Your task to perform on an android device: change your default location settings in chrome Image 0: 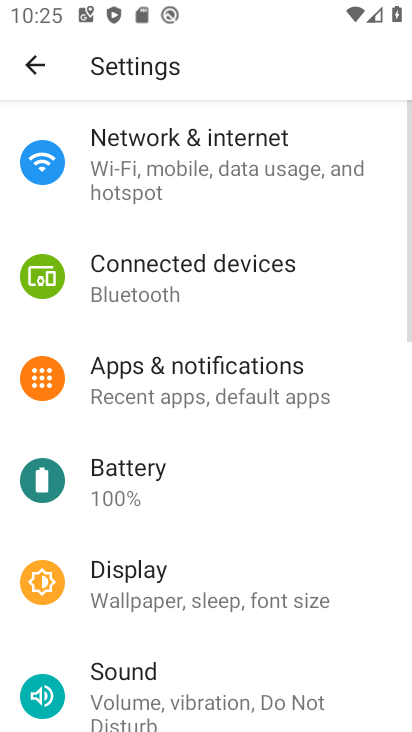
Step 0: press home button
Your task to perform on an android device: change your default location settings in chrome Image 1: 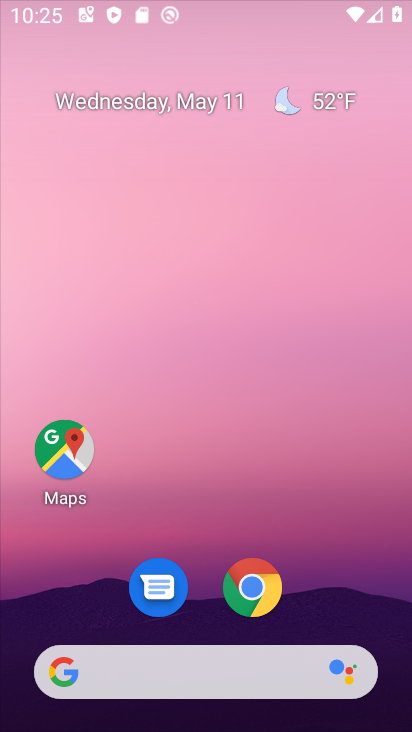
Step 1: drag from (228, 708) to (96, 184)
Your task to perform on an android device: change your default location settings in chrome Image 2: 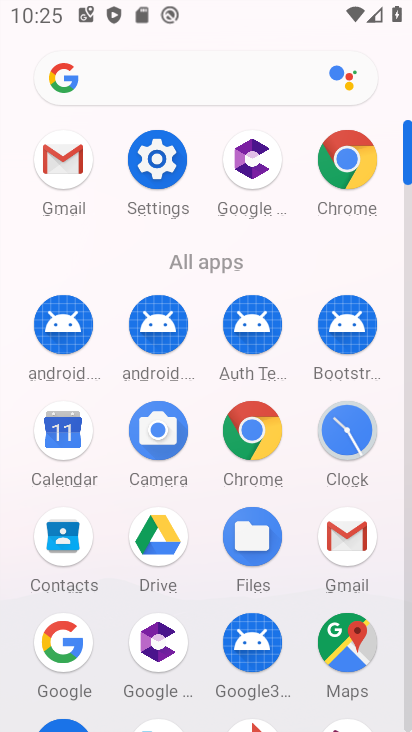
Step 2: click (229, 448)
Your task to perform on an android device: change your default location settings in chrome Image 3: 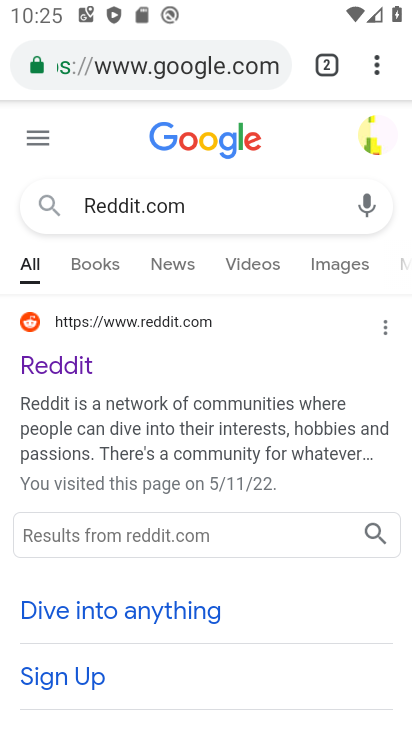
Step 3: click (363, 81)
Your task to perform on an android device: change your default location settings in chrome Image 4: 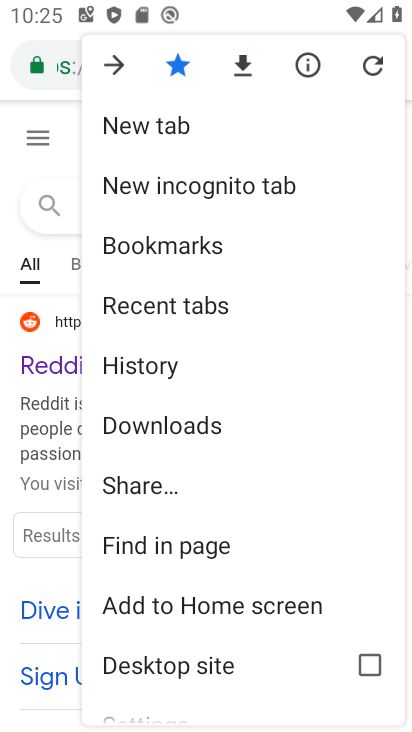
Step 4: click (164, 709)
Your task to perform on an android device: change your default location settings in chrome Image 5: 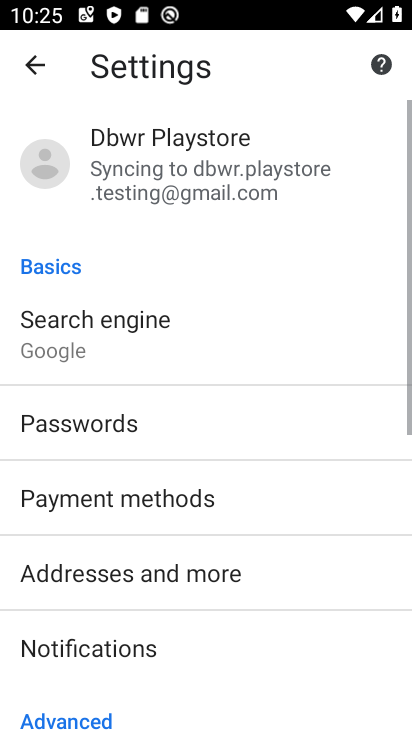
Step 5: drag from (184, 540) to (165, 327)
Your task to perform on an android device: change your default location settings in chrome Image 6: 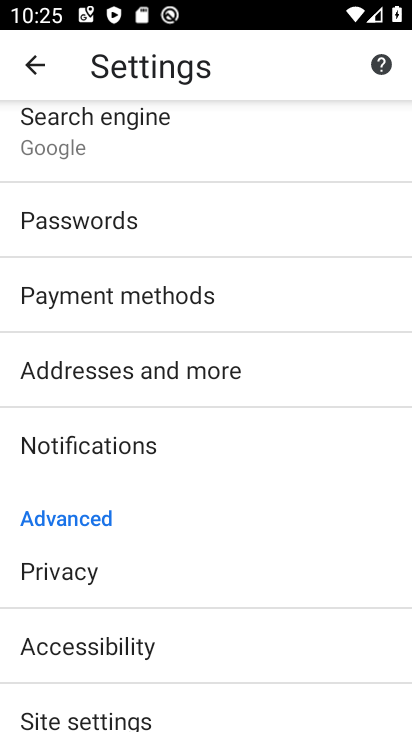
Step 6: drag from (150, 605) to (173, 343)
Your task to perform on an android device: change your default location settings in chrome Image 7: 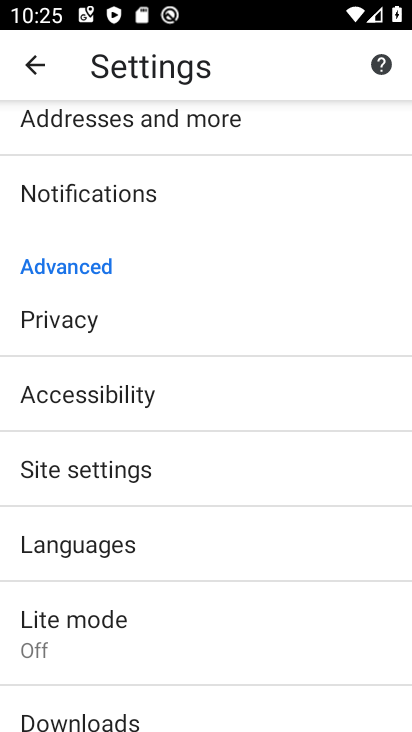
Step 7: drag from (142, 602) to (154, 379)
Your task to perform on an android device: change your default location settings in chrome Image 8: 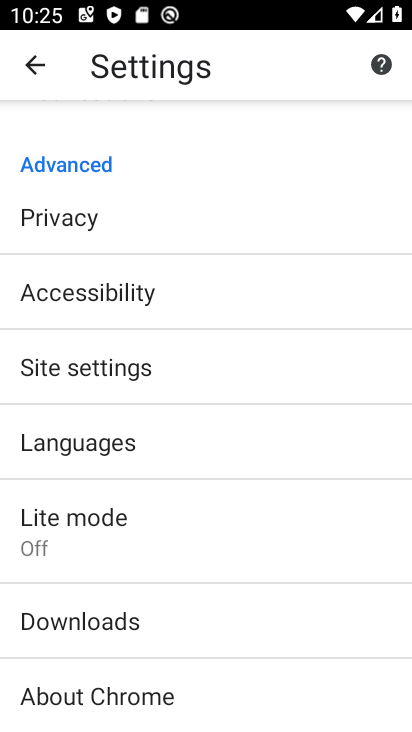
Step 8: click (87, 384)
Your task to perform on an android device: change your default location settings in chrome Image 9: 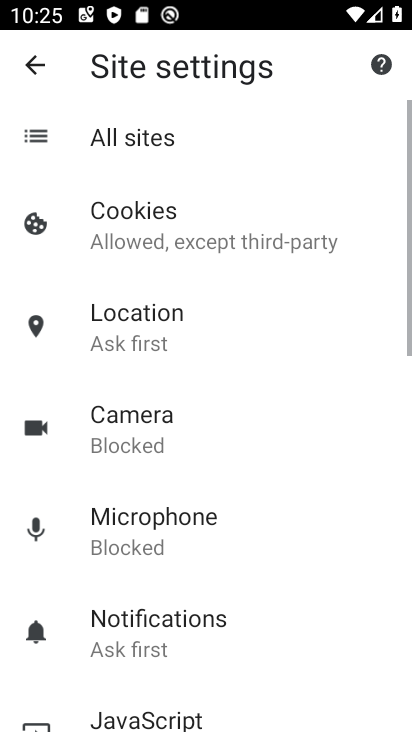
Step 9: click (136, 333)
Your task to perform on an android device: change your default location settings in chrome Image 10: 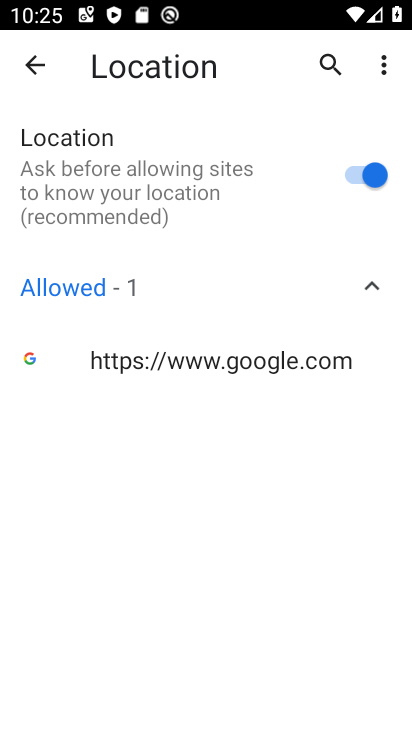
Step 10: task complete